Your task to perform on an android device: turn on the 24-hour format for clock Image 0: 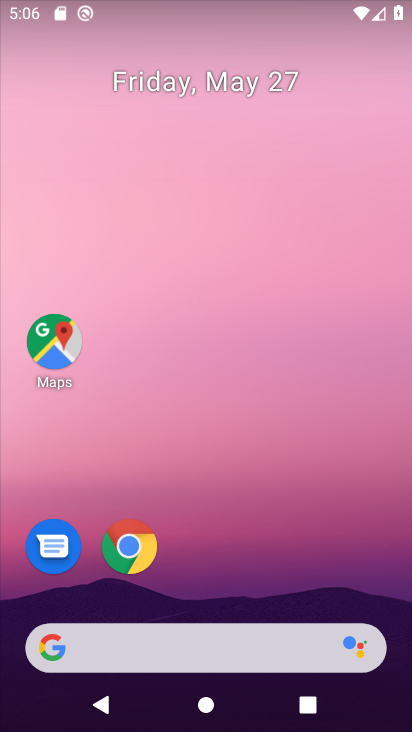
Step 0: drag from (248, 563) to (209, 0)
Your task to perform on an android device: turn on the 24-hour format for clock Image 1: 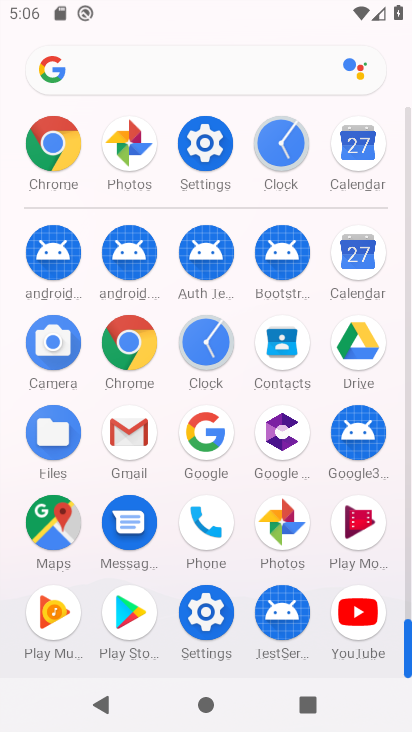
Step 1: drag from (6, 564) to (3, 265)
Your task to perform on an android device: turn on the 24-hour format for clock Image 2: 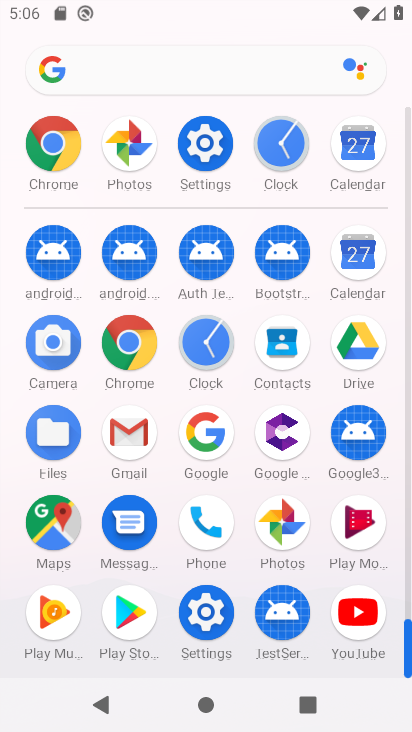
Step 2: click (281, 139)
Your task to perform on an android device: turn on the 24-hour format for clock Image 3: 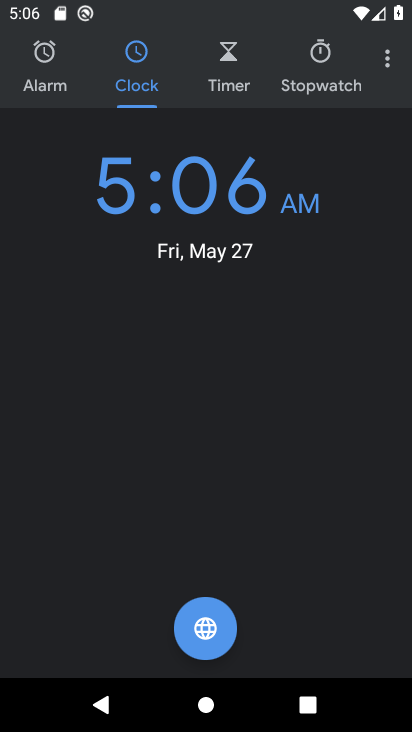
Step 3: drag from (388, 61) to (274, 123)
Your task to perform on an android device: turn on the 24-hour format for clock Image 4: 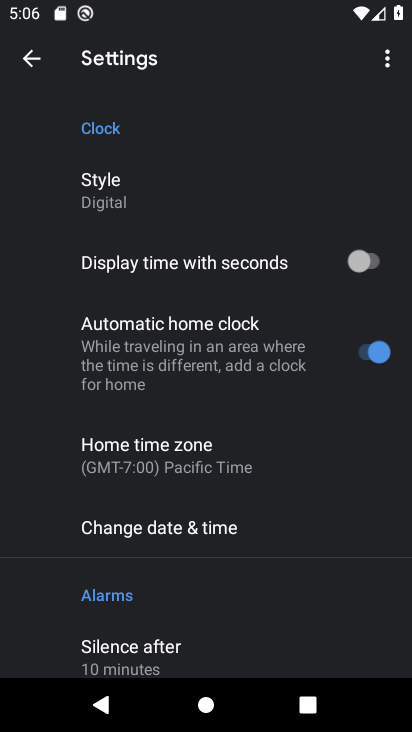
Step 4: click (130, 523)
Your task to perform on an android device: turn on the 24-hour format for clock Image 5: 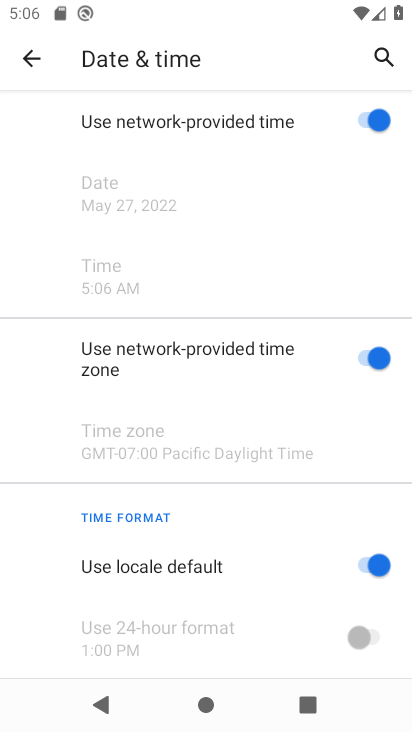
Step 5: drag from (208, 608) to (200, 241)
Your task to perform on an android device: turn on the 24-hour format for clock Image 6: 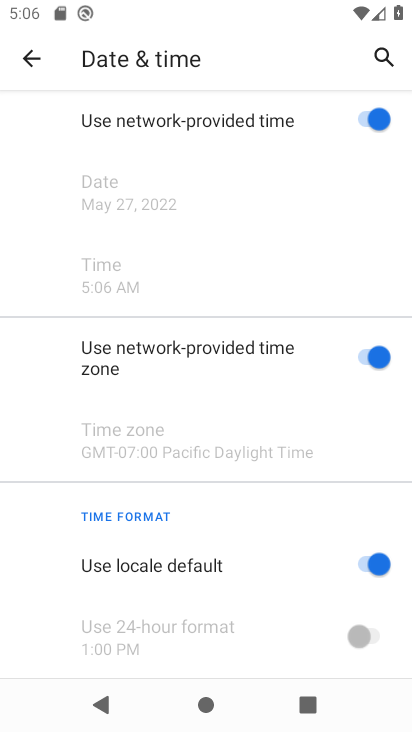
Step 6: click (369, 558)
Your task to perform on an android device: turn on the 24-hour format for clock Image 7: 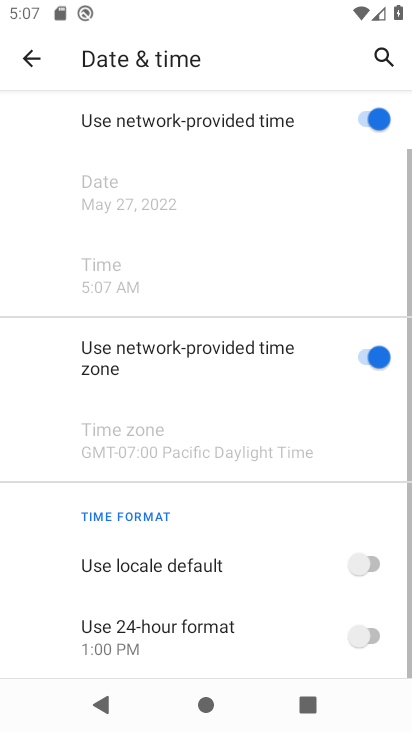
Step 7: click (361, 628)
Your task to perform on an android device: turn on the 24-hour format for clock Image 8: 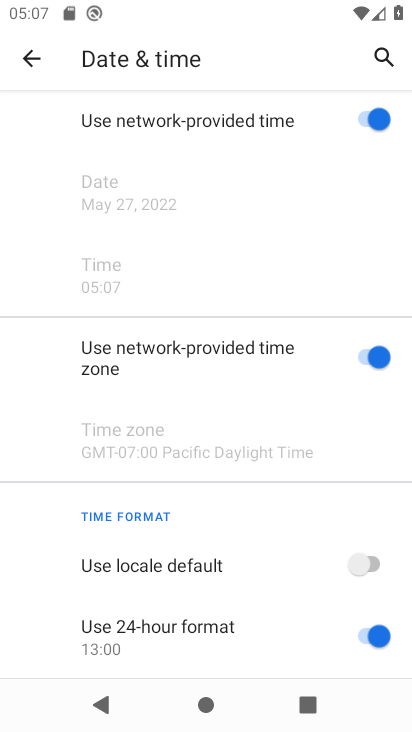
Step 8: task complete